Your task to perform on an android device: Go to Maps Image 0: 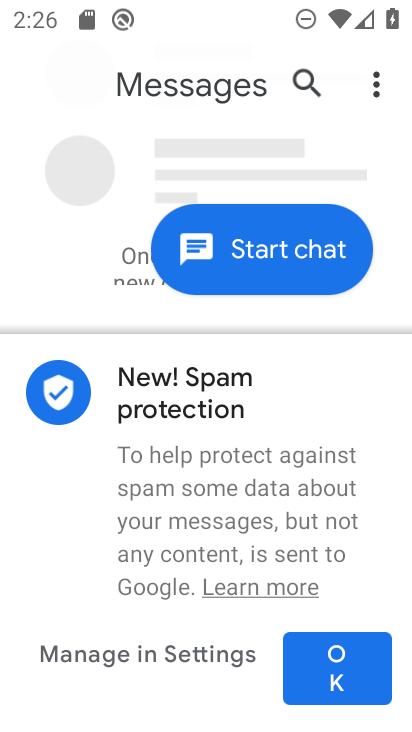
Step 0: press home button
Your task to perform on an android device: Go to Maps Image 1: 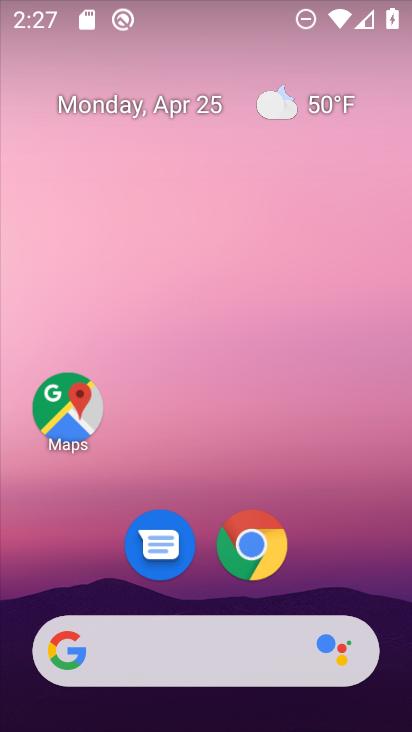
Step 1: click (73, 415)
Your task to perform on an android device: Go to Maps Image 2: 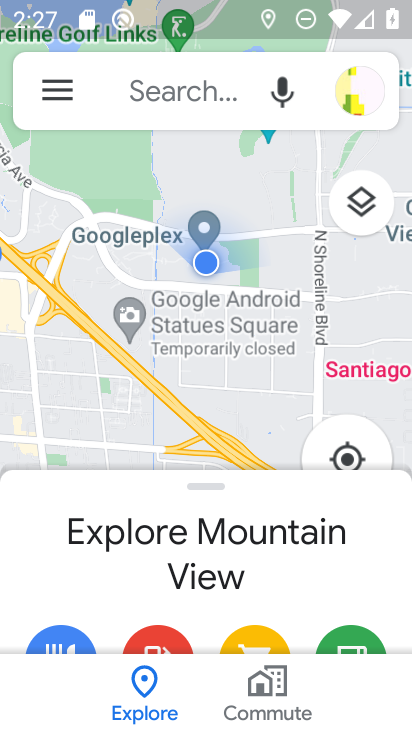
Step 2: task complete